Your task to perform on an android device: Go to Maps Image 0: 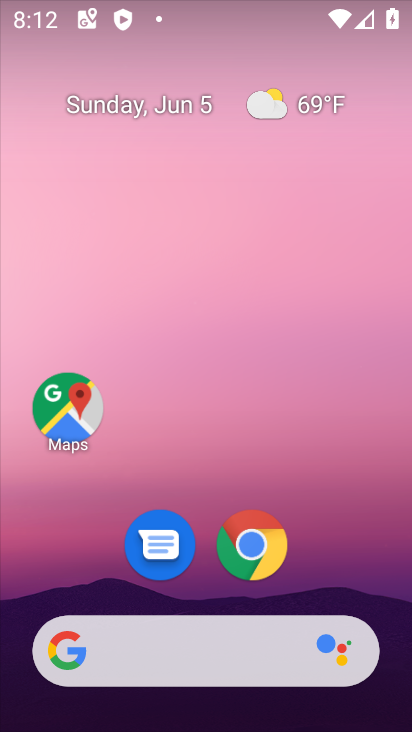
Step 0: drag from (357, 573) to (366, 113)
Your task to perform on an android device: Go to Maps Image 1: 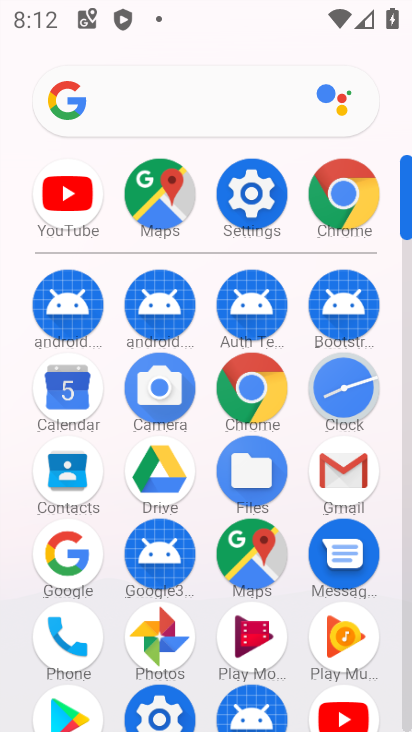
Step 1: click (263, 545)
Your task to perform on an android device: Go to Maps Image 2: 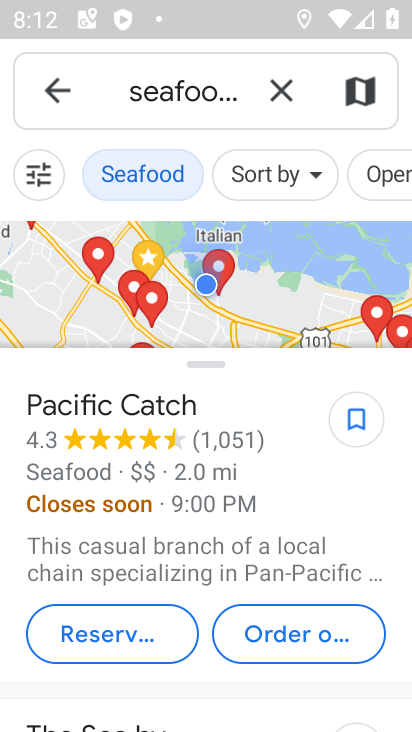
Step 2: task complete